Your task to perform on an android device: Go to display settings Image 0: 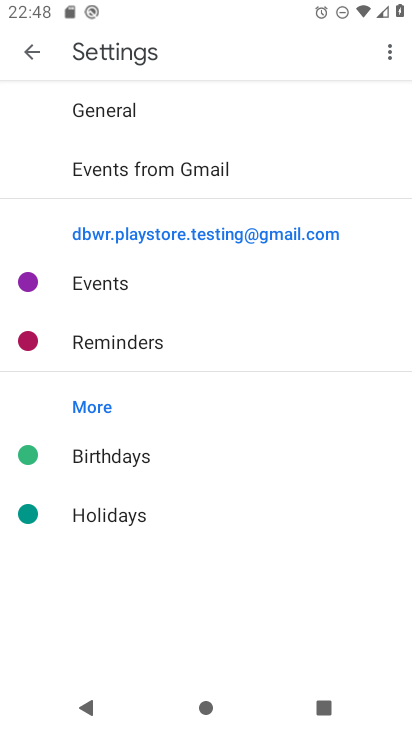
Step 0: press home button
Your task to perform on an android device: Go to display settings Image 1: 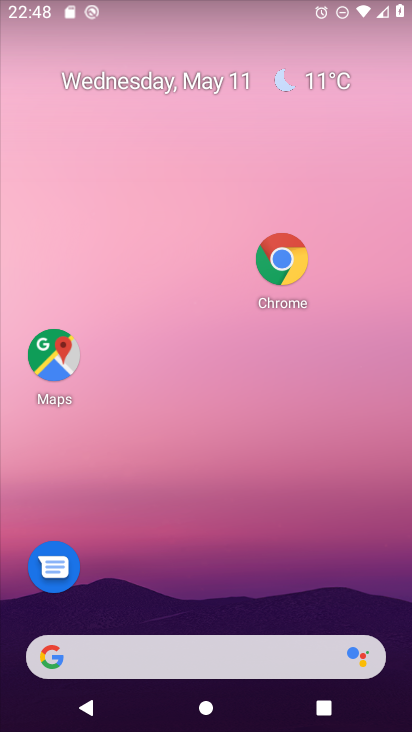
Step 1: drag from (176, 654) to (317, 59)
Your task to perform on an android device: Go to display settings Image 2: 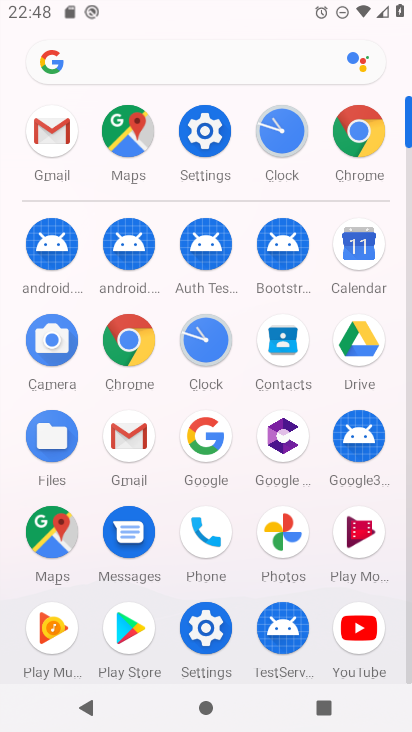
Step 2: click (210, 132)
Your task to perform on an android device: Go to display settings Image 3: 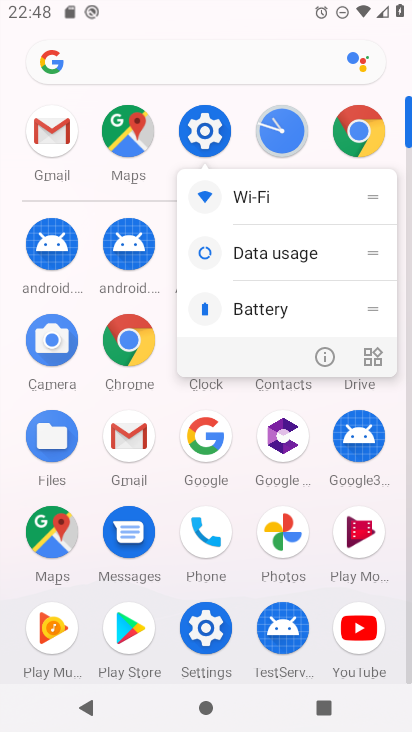
Step 3: click (206, 136)
Your task to perform on an android device: Go to display settings Image 4: 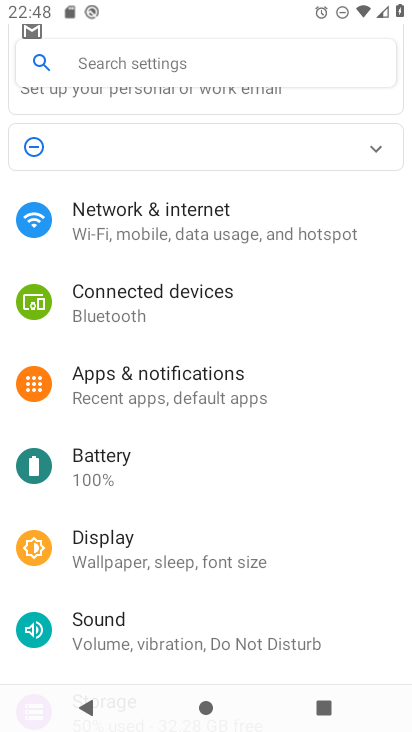
Step 4: click (120, 542)
Your task to perform on an android device: Go to display settings Image 5: 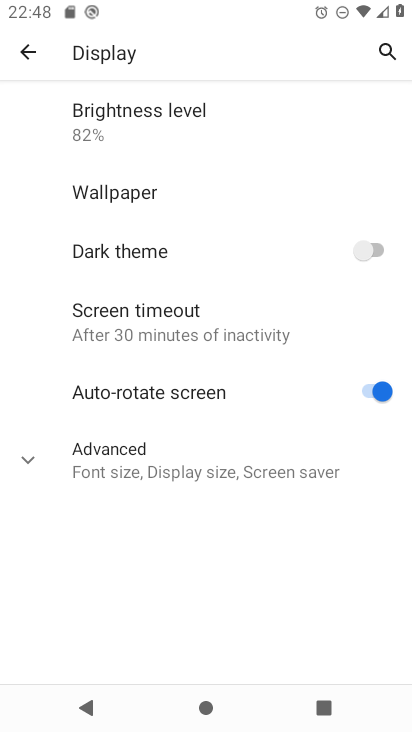
Step 5: task complete